Your task to perform on an android device: open a new tab in the chrome app Image 0: 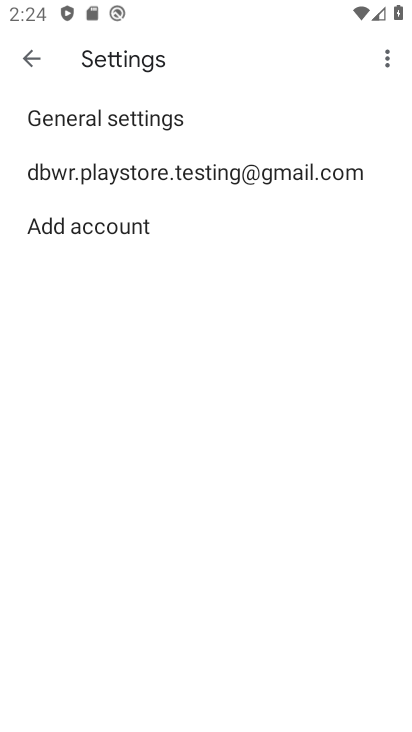
Step 0: press back button
Your task to perform on an android device: open a new tab in the chrome app Image 1: 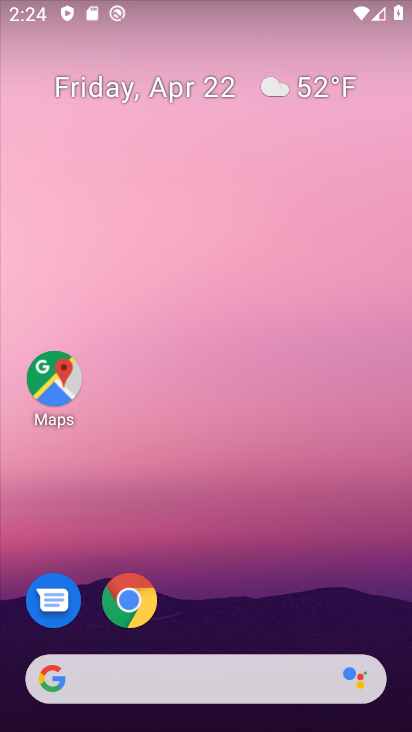
Step 1: drag from (217, 595) to (171, 80)
Your task to perform on an android device: open a new tab in the chrome app Image 2: 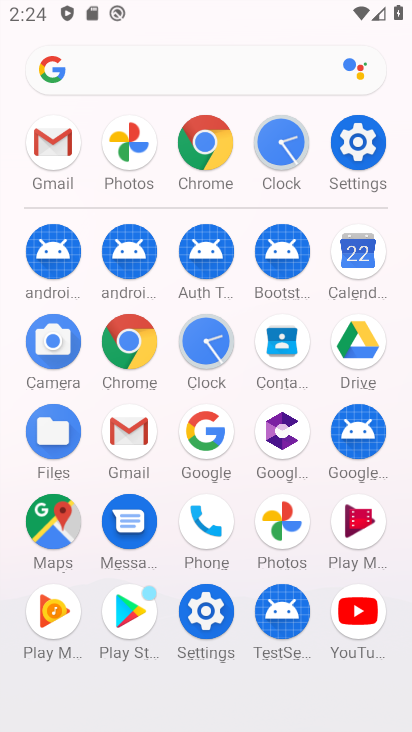
Step 2: drag from (6, 423) to (0, 235)
Your task to perform on an android device: open a new tab in the chrome app Image 3: 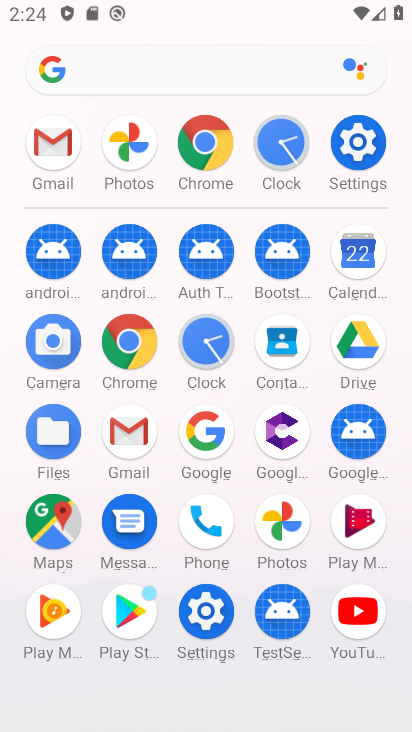
Step 3: click (204, 141)
Your task to perform on an android device: open a new tab in the chrome app Image 4: 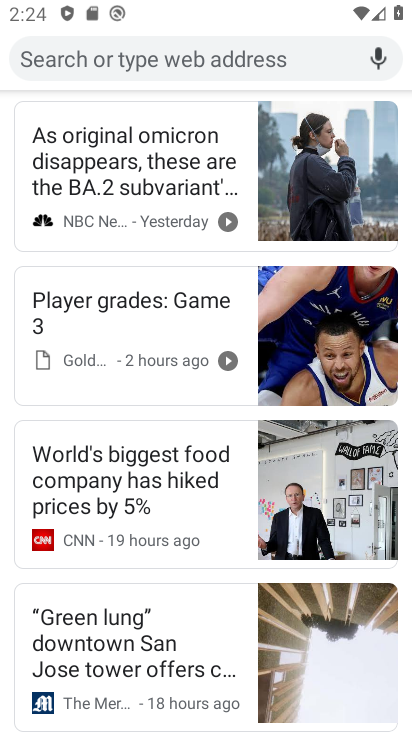
Step 4: task complete